Your task to perform on an android device: see creations saved in the google photos Image 0: 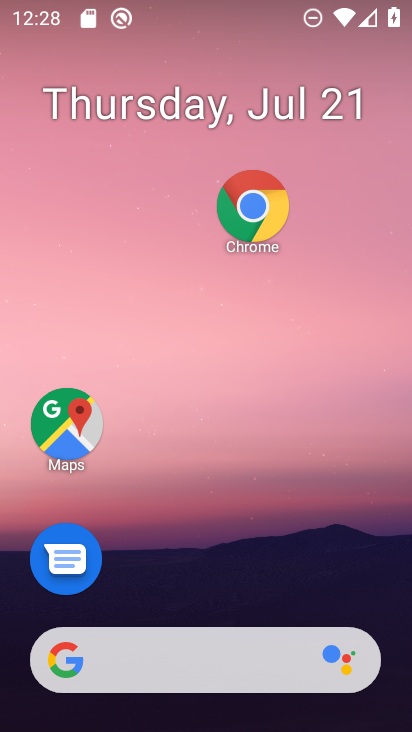
Step 0: drag from (266, 607) to (265, 227)
Your task to perform on an android device: see creations saved in the google photos Image 1: 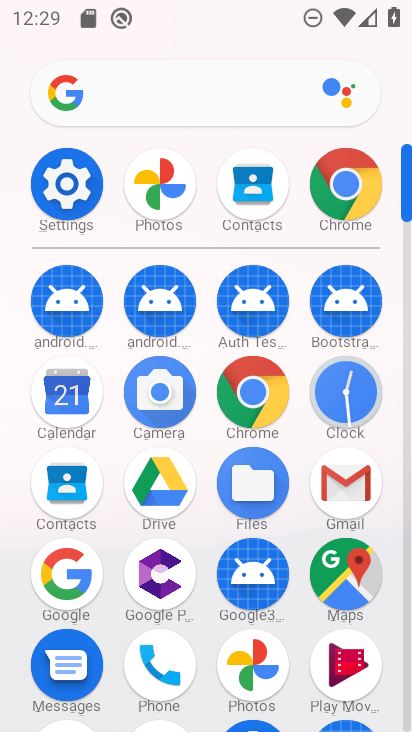
Step 1: click (238, 671)
Your task to perform on an android device: see creations saved in the google photos Image 2: 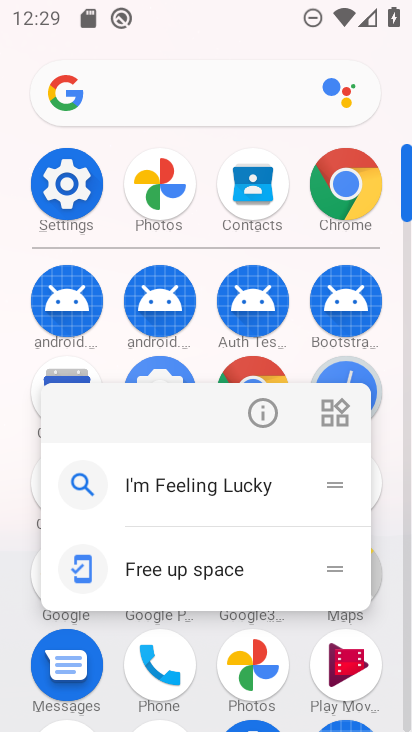
Step 2: click (247, 671)
Your task to perform on an android device: see creations saved in the google photos Image 3: 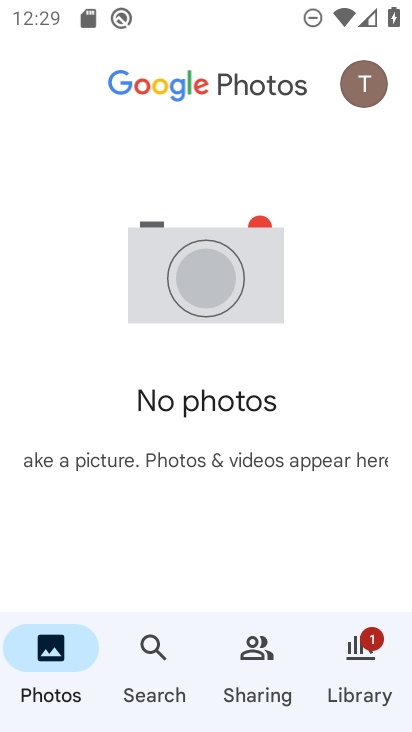
Step 3: click (344, 700)
Your task to perform on an android device: see creations saved in the google photos Image 4: 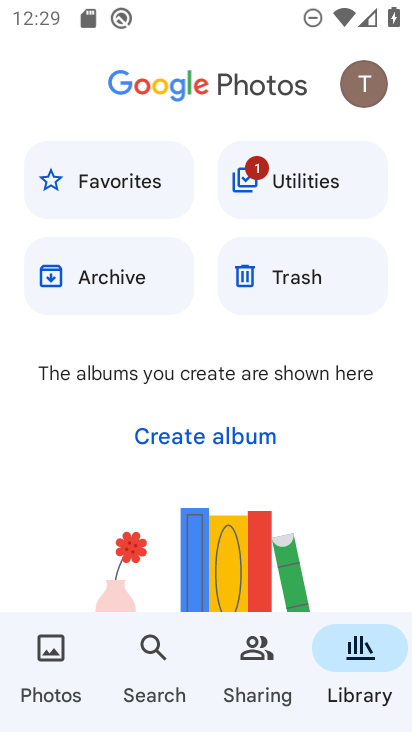
Step 4: task complete